Your task to perform on an android device: Go to Amazon Image 0: 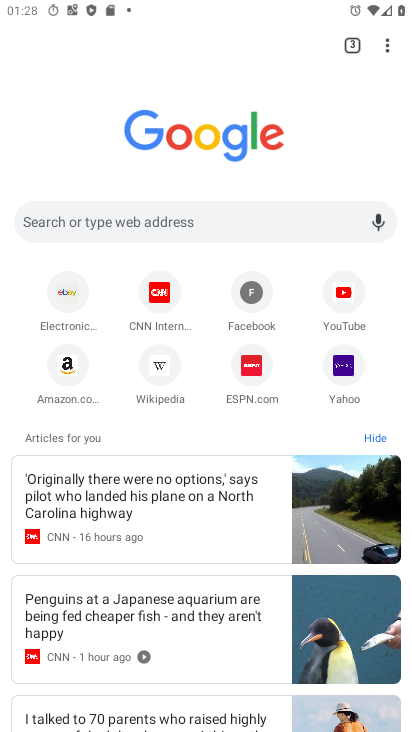
Step 0: press home button
Your task to perform on an android device: Go to Amazon Image 1: 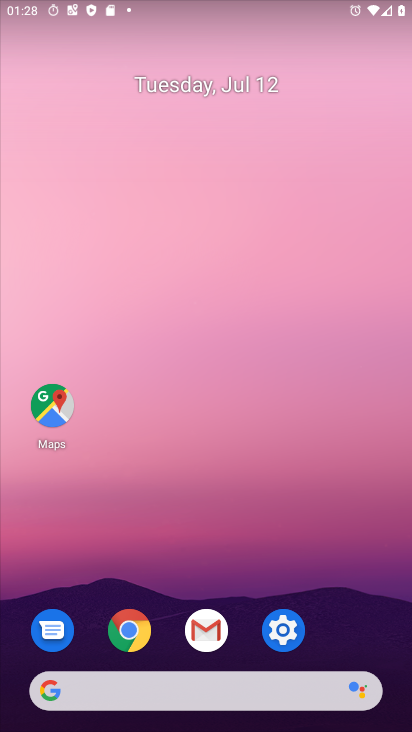
Step 1: click (129, 631)
Your task to perform on an android device: Go to Amazon Image 2: 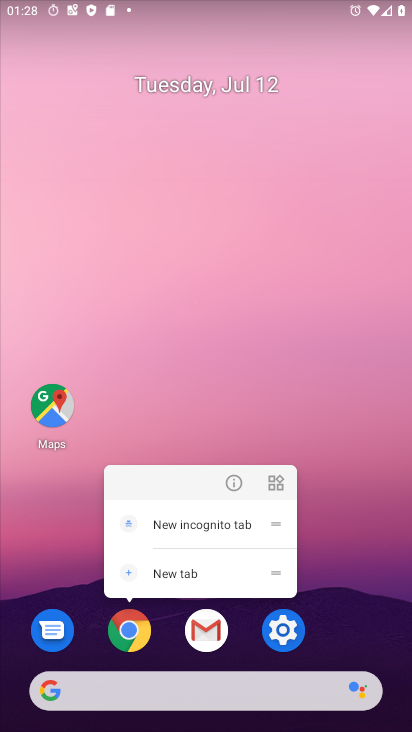
Step 2: click (124, 629)
Your task to perform on an android device: Go to Amazon Image 3: 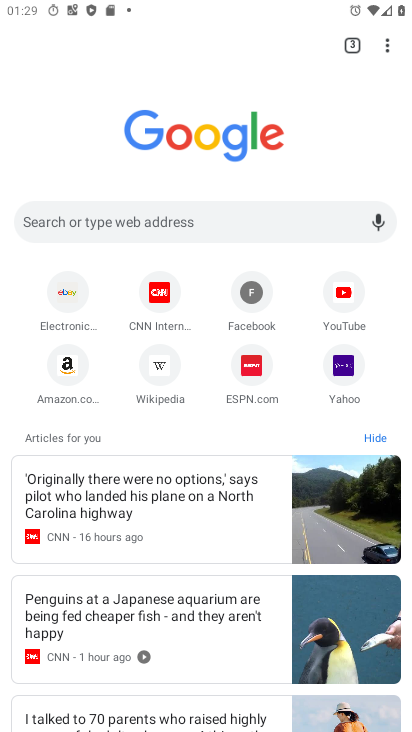
Step 3: click (74, 361)
Your task to perform on an android device: Go to Amazon Image 4: 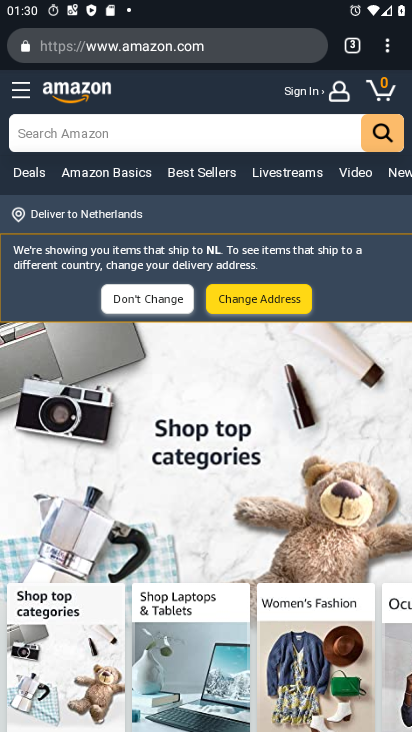
Step 4: task complete